Your task to perform on an android device: open a new tab in the chrome app Image 0: 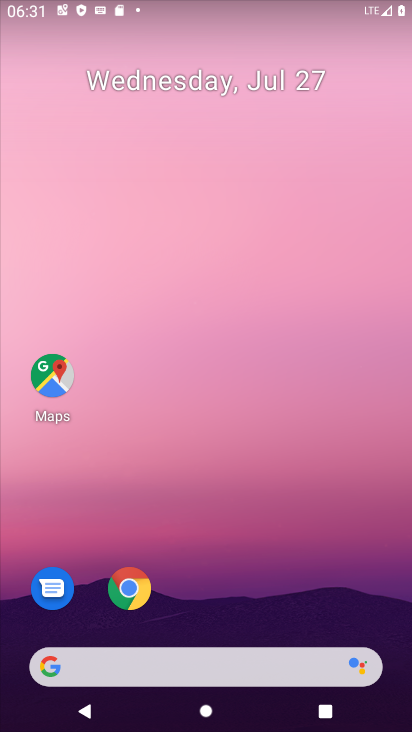
Step 0: drag from (270, 562) to (205, 3)
Your task to perform on an android device: open a new tab in the chrome app Image 1: 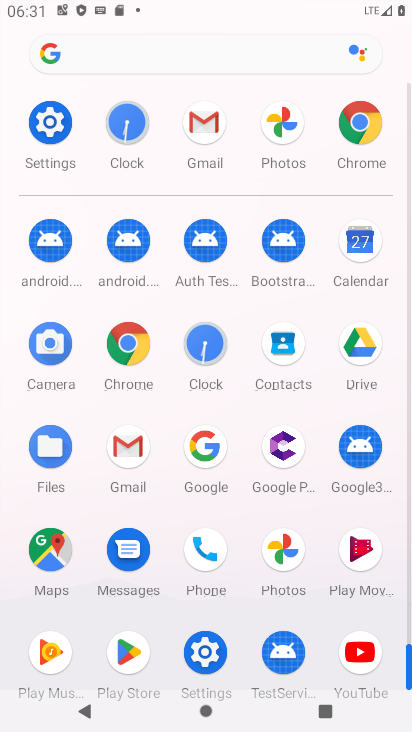
Step 1: click (136, 353)
Your task to perform on an android device: open a new tab in the chrome app Image 2: 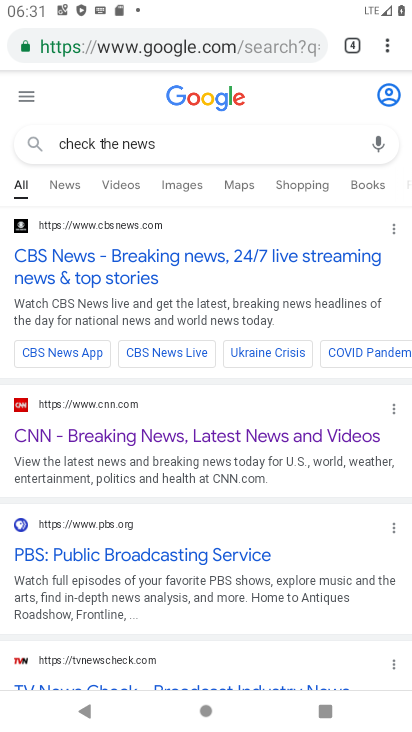
Step 2: task complete